Your task to perform on an android device: turn on bluetooth scan Image 0: 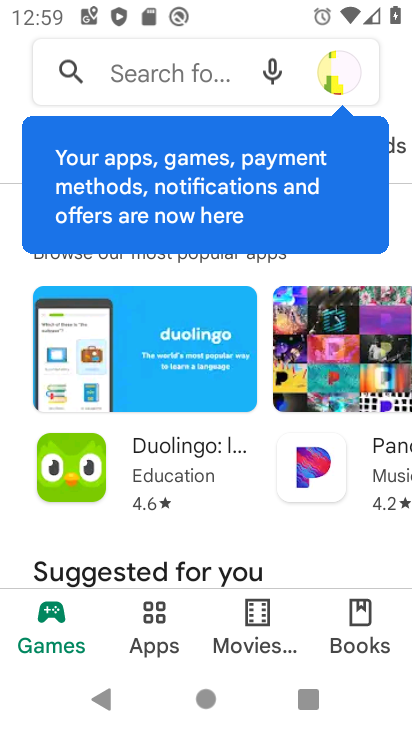
Step 0: press home button
Your task to perform on an android device: turn on bluetooth scan Image 1: 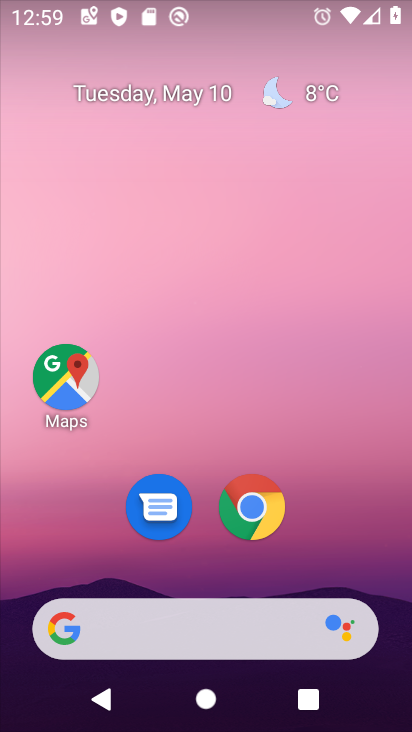
Step 1: drag from (220, 718) to (220, 220)
Your task to perform on an android device: turn on bluetooth scan Image 2: 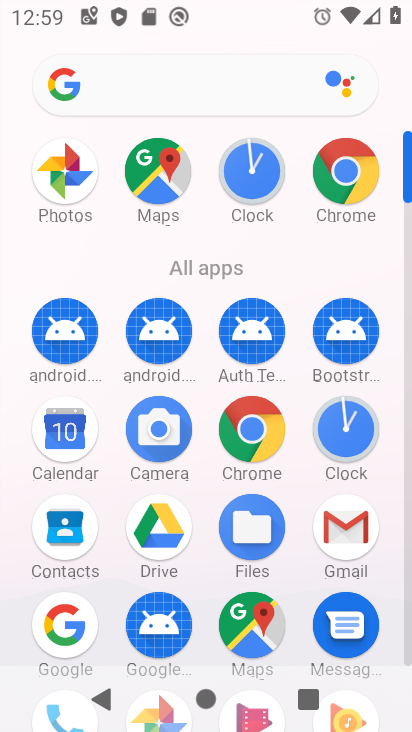
Step 2: drag from (23, 615) to (12, 244)
Your task to perform on an android device: turn on bluetooth scan Image 3: 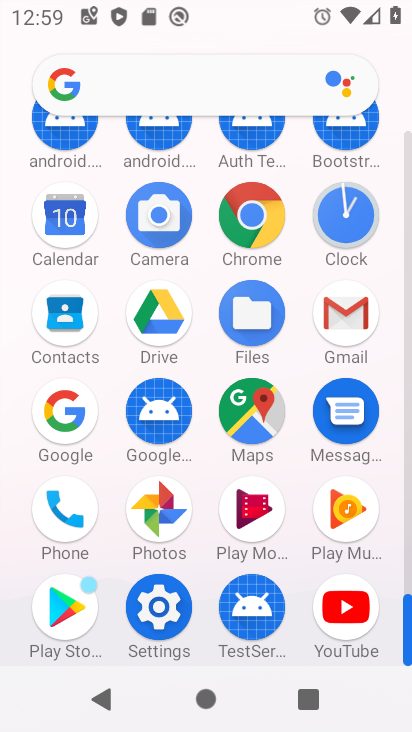
Step 3: click (169, 606)
Your task to perform on an android device: turn on bluetooth scan Image 4: 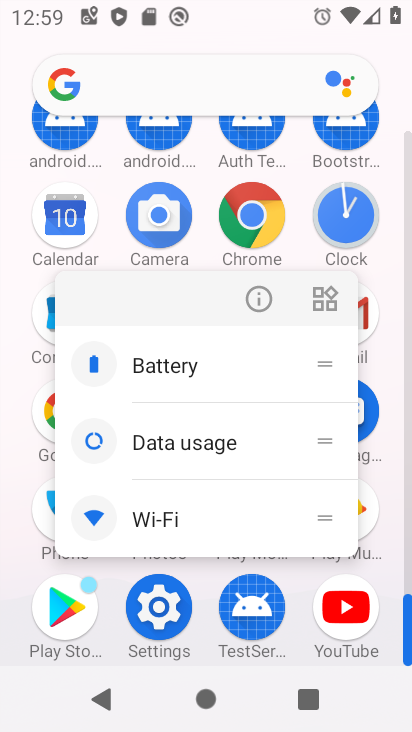
Step 4: click (170, 606)
Your task to perform on an android device: turn on bluetooth scan Image 5: 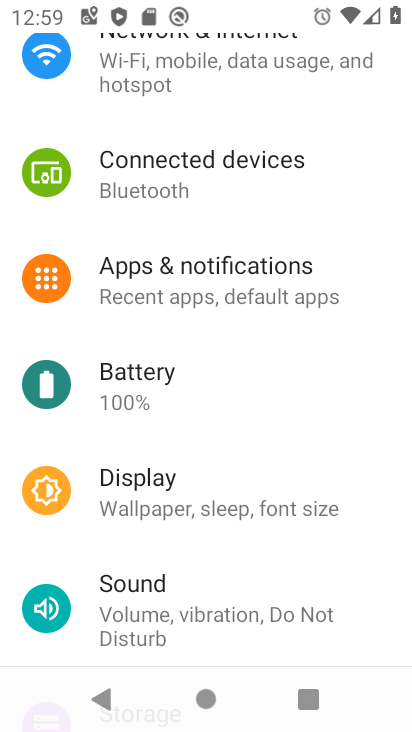
Step 5: drag from (195, 645) to (196, 257)
Your task to perform on an android device: turn on bluetooth scan Image 6: 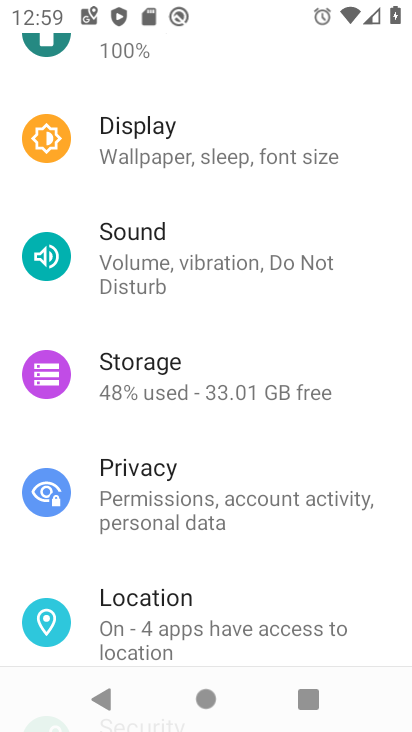
Step 6: click (172, 599)
Your task to perform on an android device: turn on bluetooth scan Image 7: 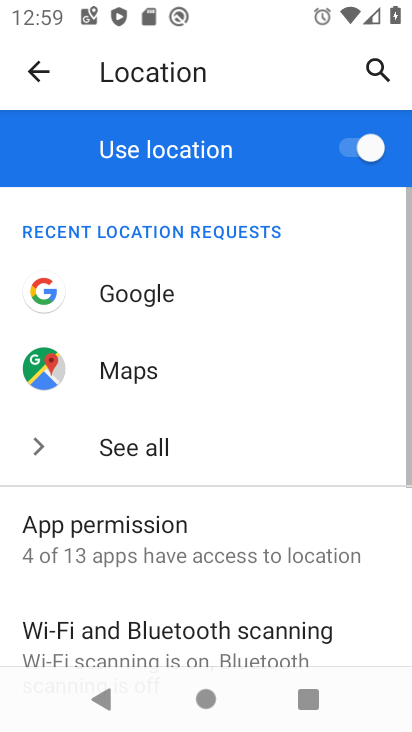
Step 7: drag from (222, 640) to (229, 392)
Your task to perform on an android device: turn on bluetooth scan Image 8: 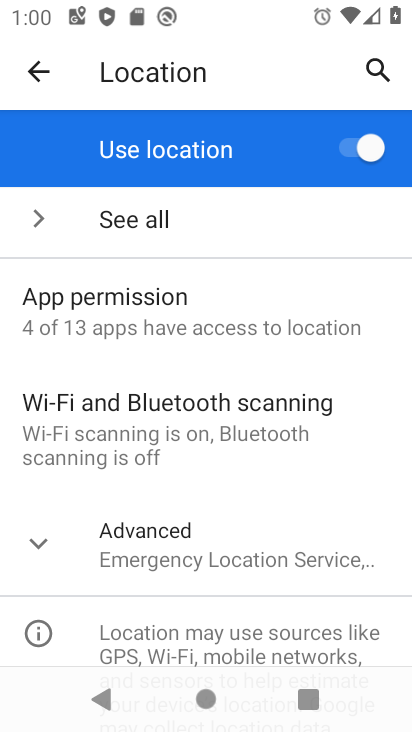
Step 8: drag from (204, 614) to (190, 458)
Your task to perform on an android device: turn on bluetooth scan Image 9: 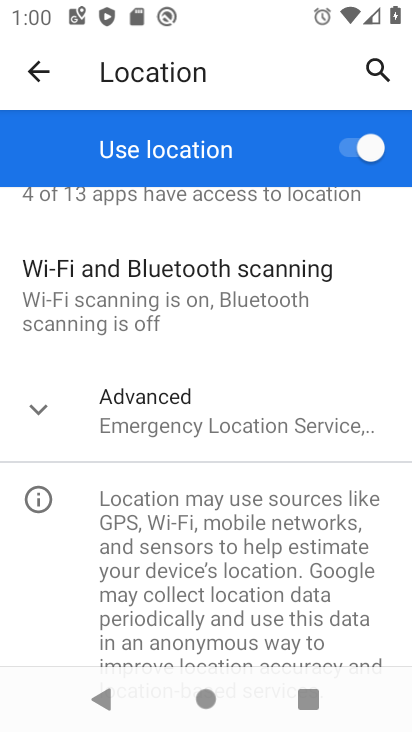
Step 9: click (160, 279)
Your task to perform on an android device: turn on bluetooth scan Image 10: 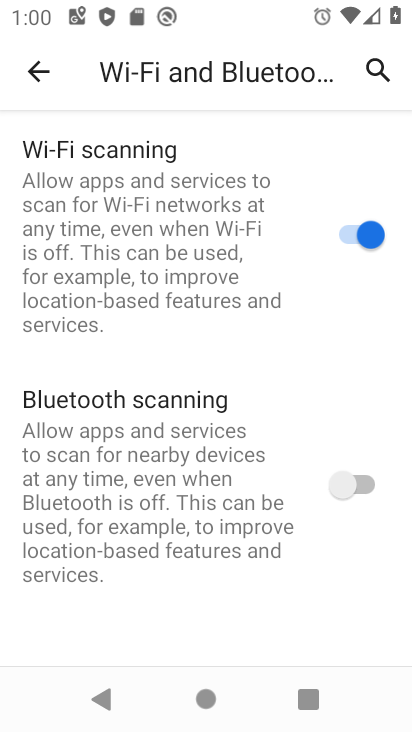
Step 10: click (370, 485)
Your task to perform on an android device: turn on bluetooth scan Image 11: 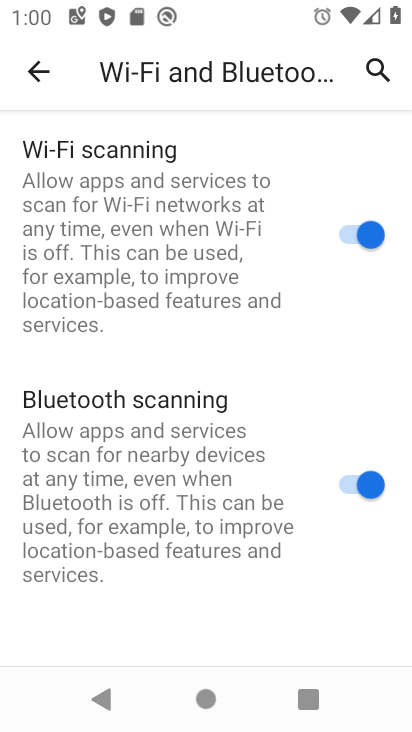
Step 11: task complete